Your task to perform on an android device: Open Google Chrome Image 0: 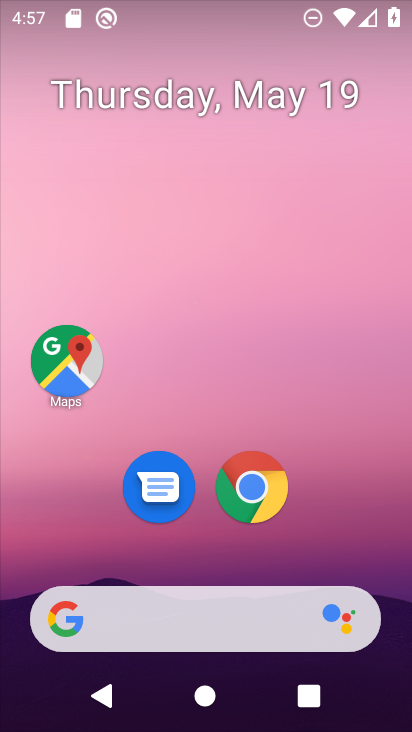
Step 0: click (256, 486)
Your task to perform on an android device: Open Google Chrome Image 1: 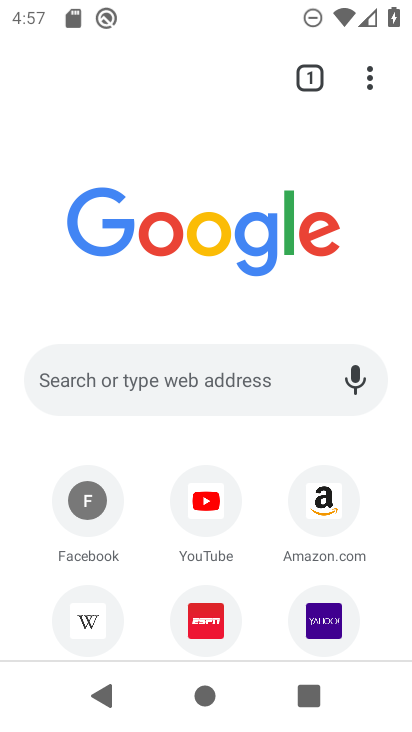
Step 1: task complete